Your task to perform on an android device: turn on wifi Image 0: 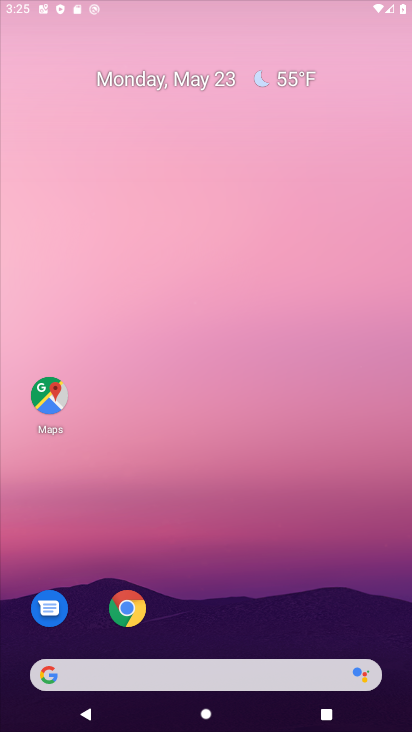
Step 0: drag from (315, 621) to (191, 48)
Your task to perform on an android device: turn on wifi Image 1: 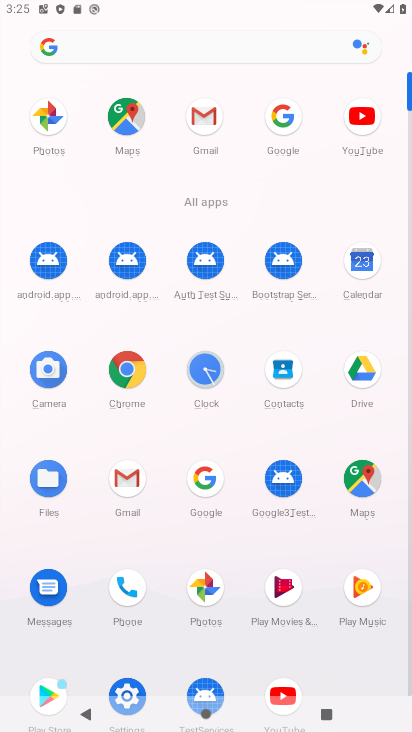
Step 1: drag from (222, 513) to (230, 47)
Your task to perform on an android device: turn on wifi Image 2: 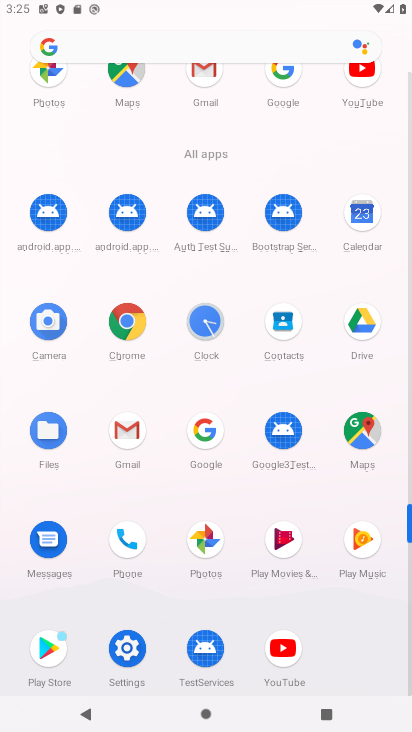
Step 2: click (133, 635)
Your task to perform on an android device: turn on wifi Image 3: 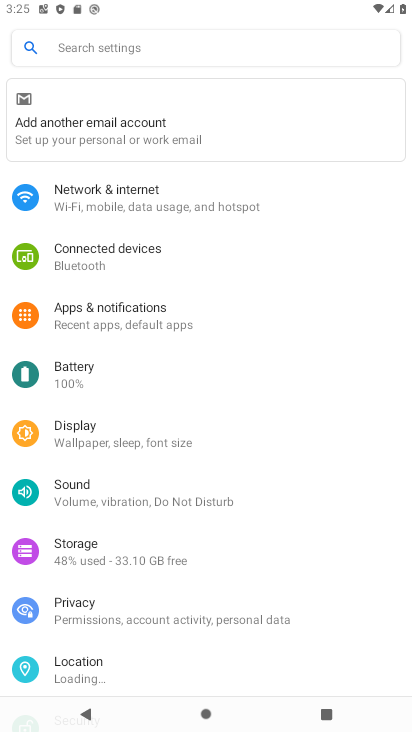
Step 3: click (171, 197)
Your task to perform on an android device: turn on wifi Image 4: 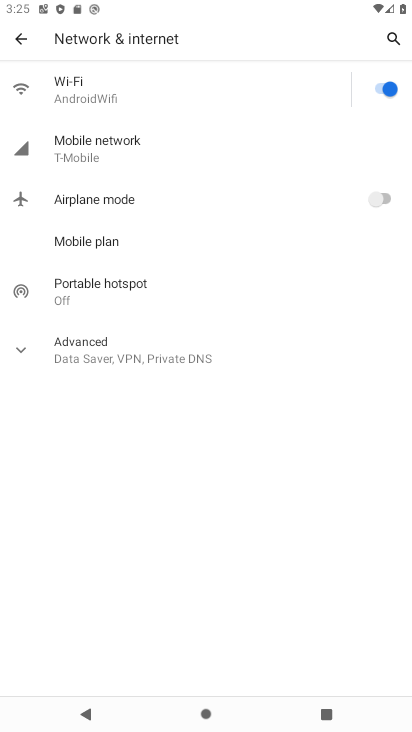
Step 4: task complete